Your task to perform on an android device: turn on priority inbox in the gmail app Image 0: 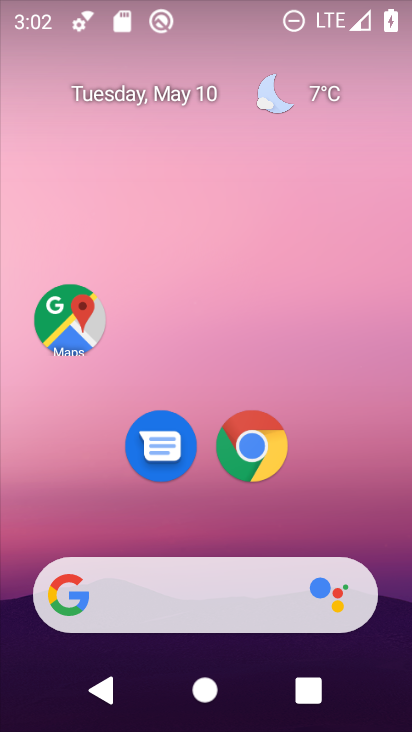
Step 0: drag from (248, 526) to (238, 111)
Your task to perform on an android device: turn on priority inbox in the gmail app Image 1: 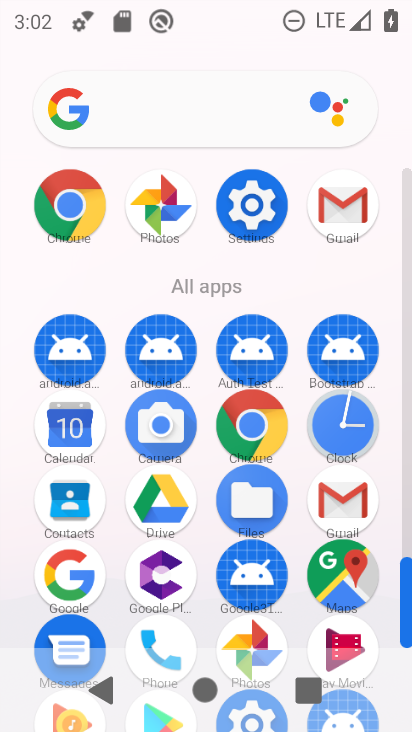
Step 1: click (343, 206)
Your task to perform on an android device: turn on priority inbox in the gmail app Image 2: 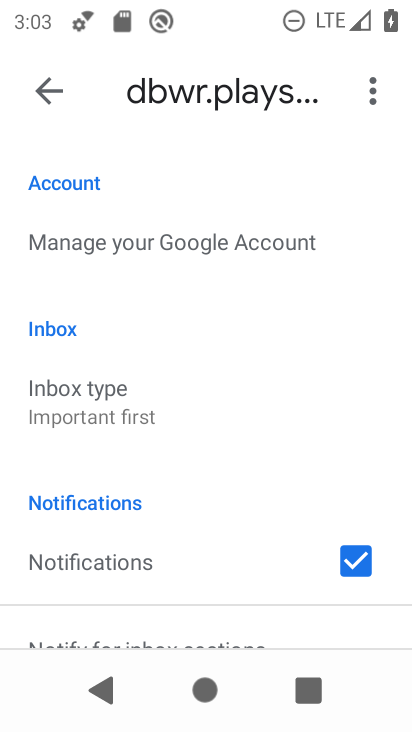
Step 2: click (138, 395)
Your task to perform on an android device: turn on priority inbox in the gmail app Image 3: 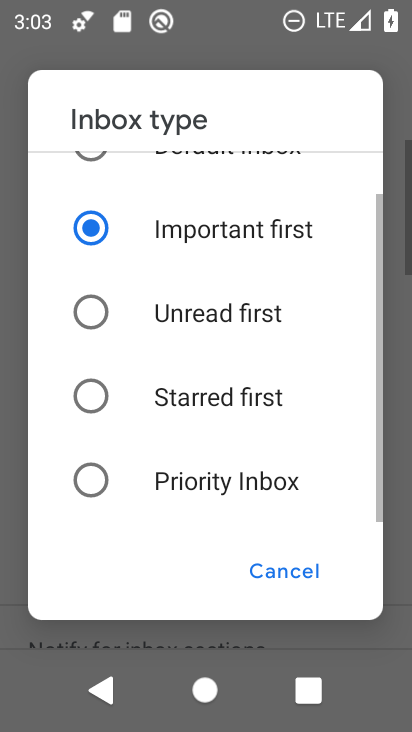
Step 3: click (175, 474)
Your task to perform on an android device: turn on priority inbox in the gmail app Image 4: 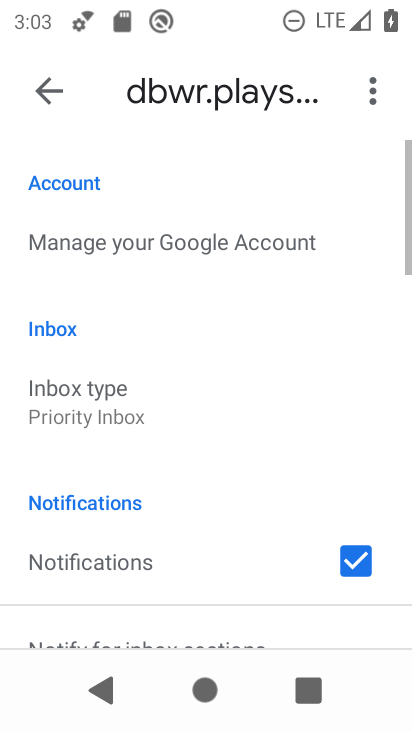
Step 4: task complete